Your task to perform on an android device: Open Chrome and go to the settings page Image 0: 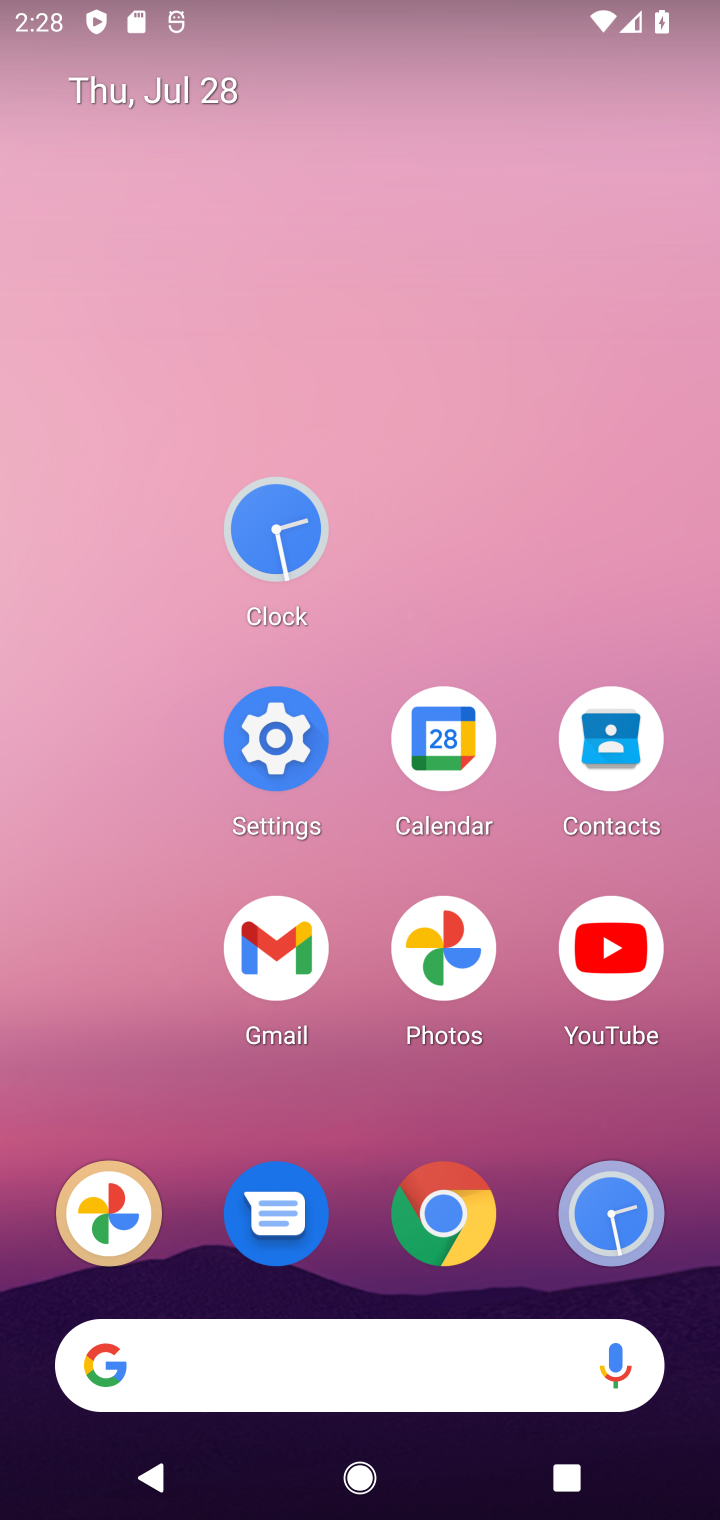
Step 0: click (439, 1223)
Your task to perform on an android device: Open Chrome and go to the settings page Image 1: 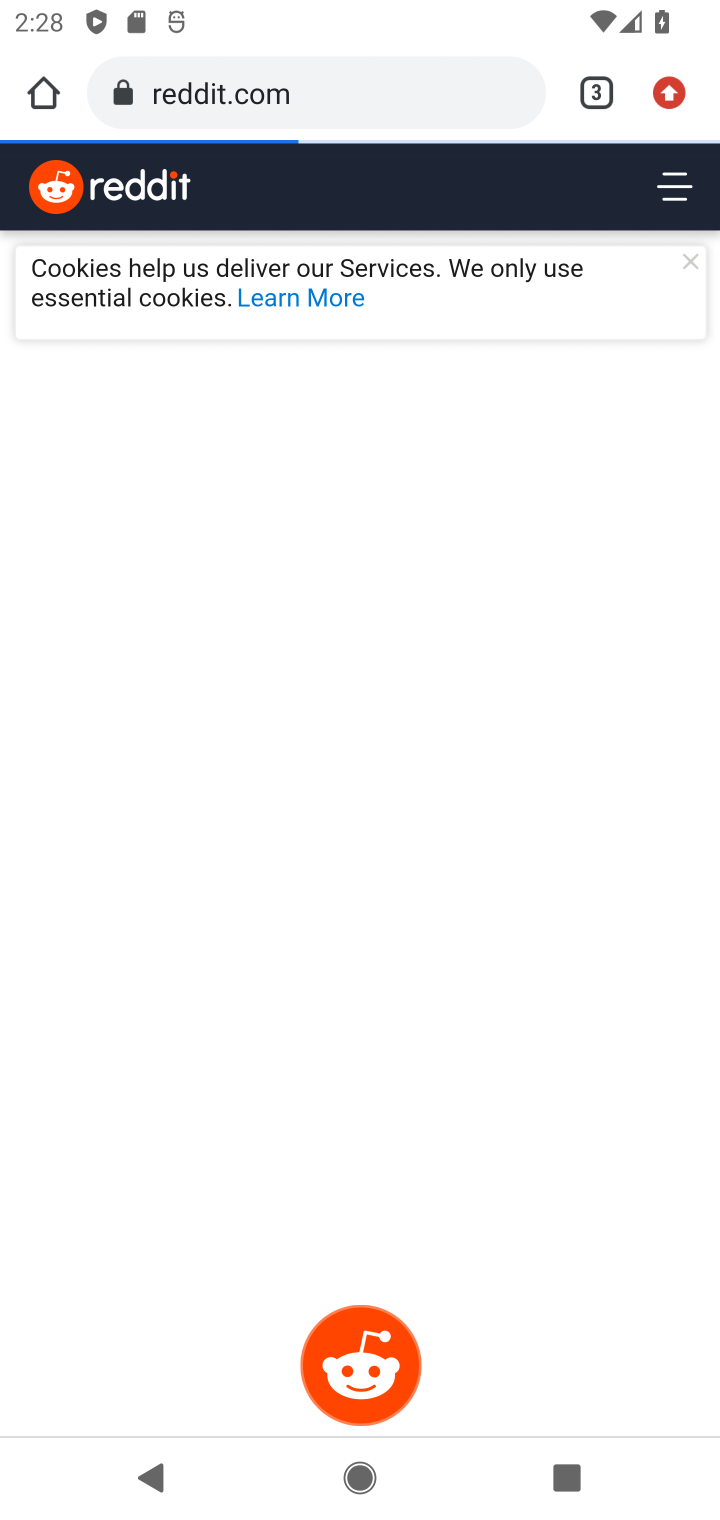
Step 1: click (670, 87)
Your task to perform on an android device: Open Chrome and go to the settings page Image 2: 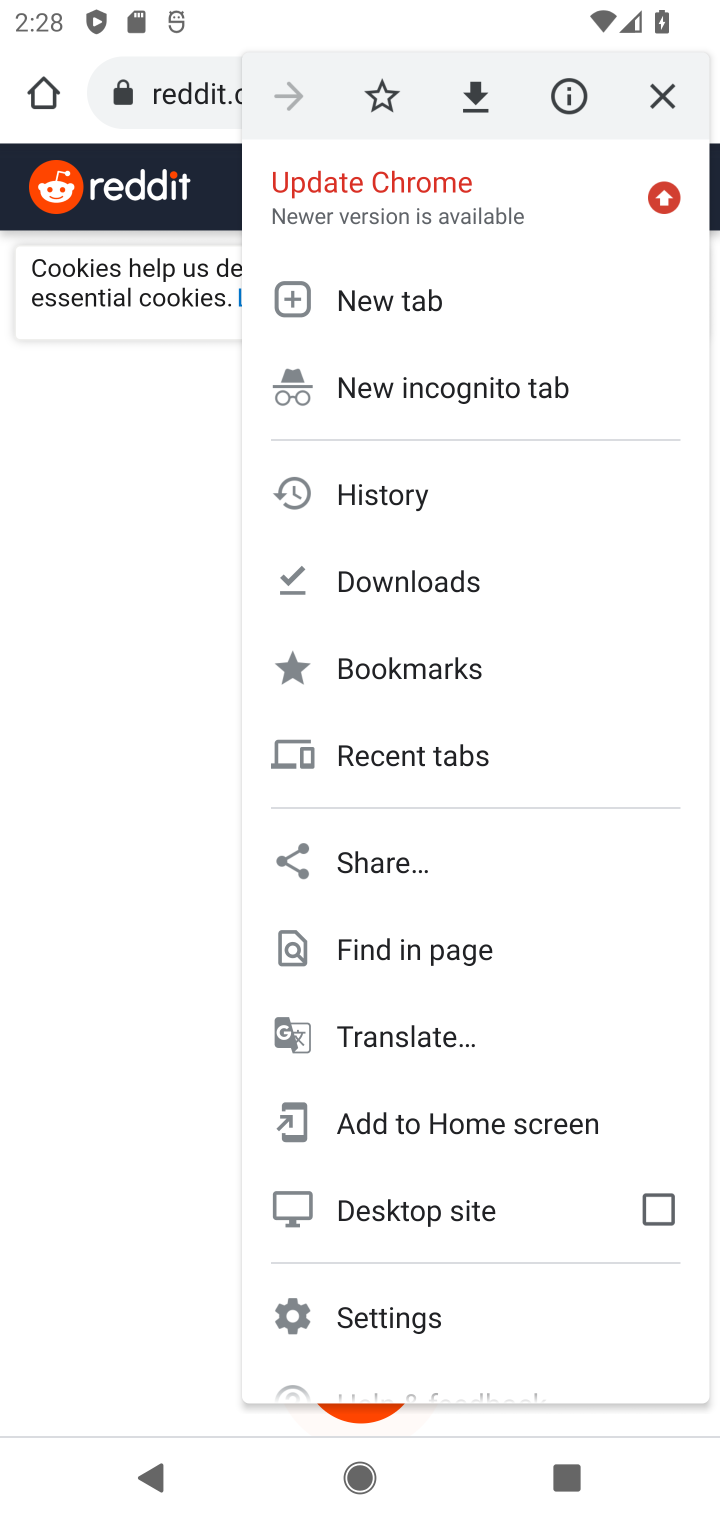
Step 2: click (378, 1309)
Your task to perform on an android device: Open Chrome and go to the settings page Image 3: 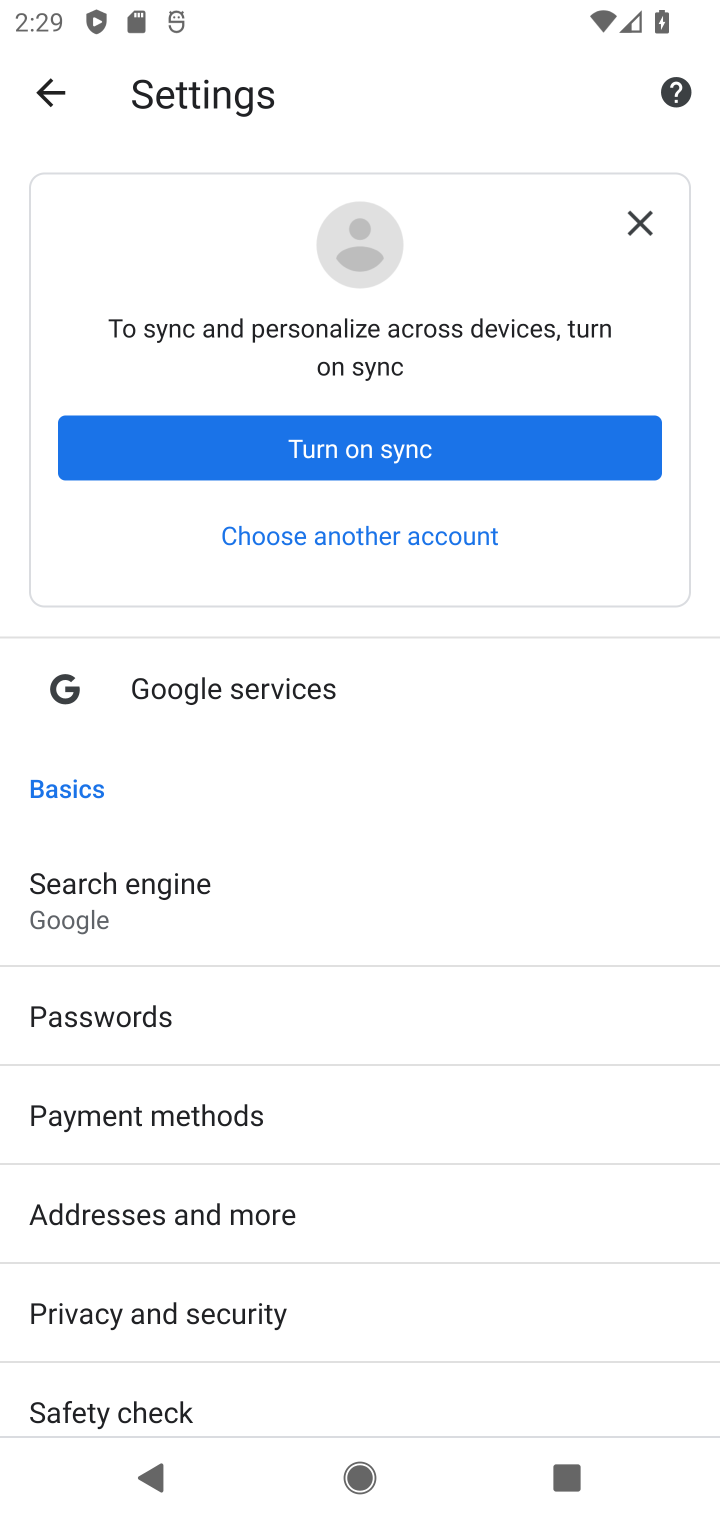
Step 3: task complete